Your task to perform on an android device: check the backup settings in the google photos Image 0: 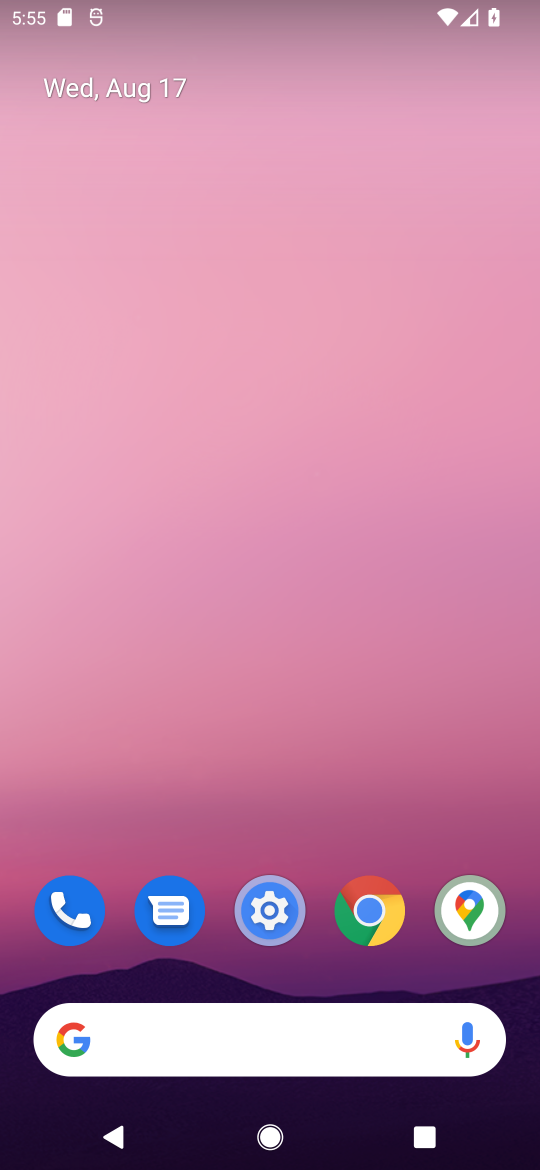
Step 0: drag from (383, 764) to (440, 534)
Your task to perform on an android device: check the backup settings in the google photos Image 1: 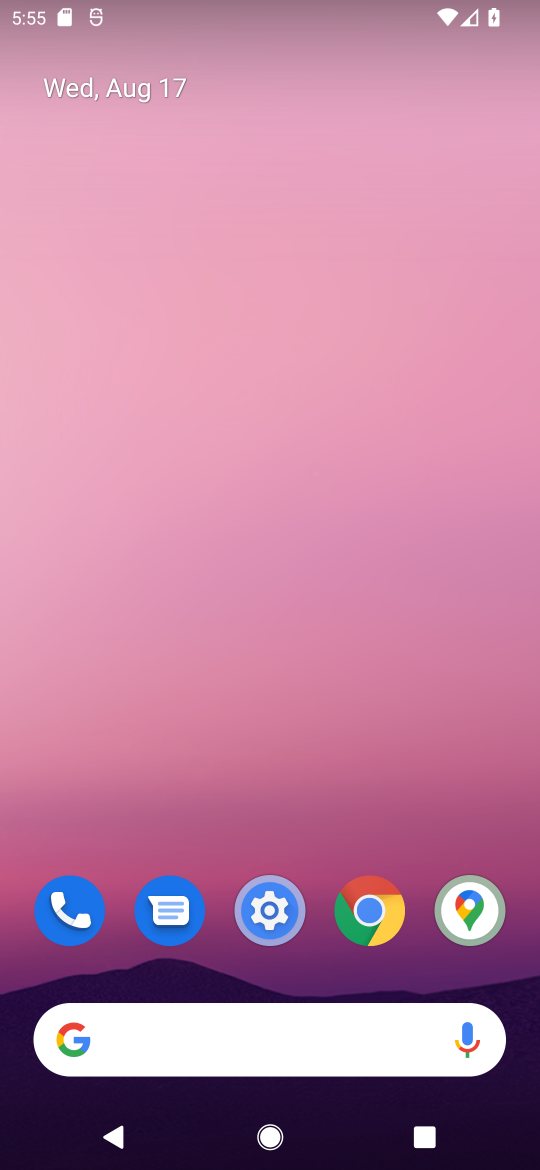
Step 1: drag from (245, 798) to (273, 339)
Your task to perform on an android device: check the backup settings in the google photos Image 2: 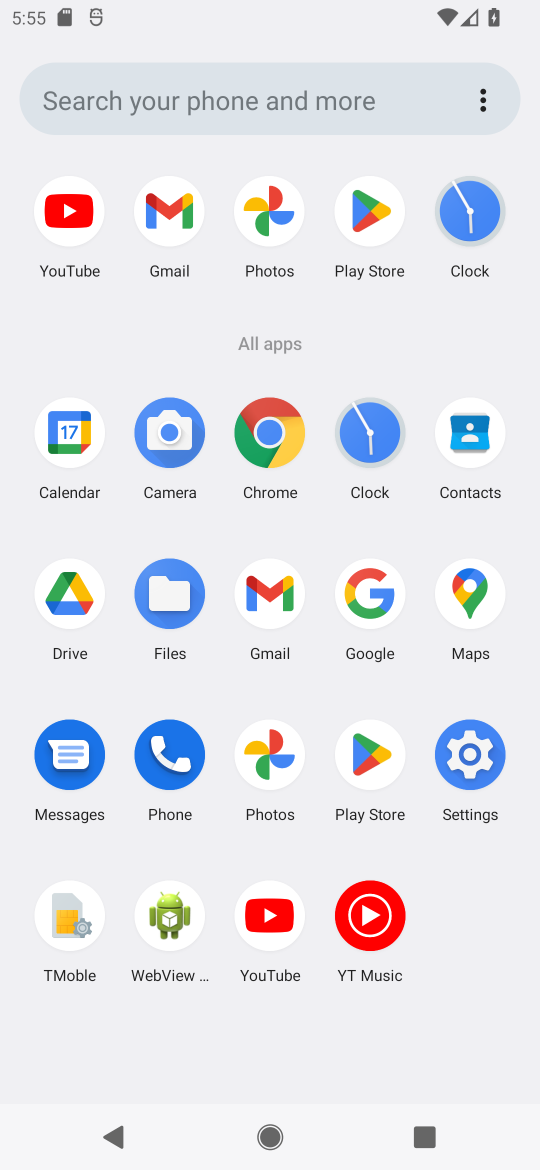
Step 2: click (268, 740)
Your task to perform on an android device: check the backup settings in the google photos Image 3: 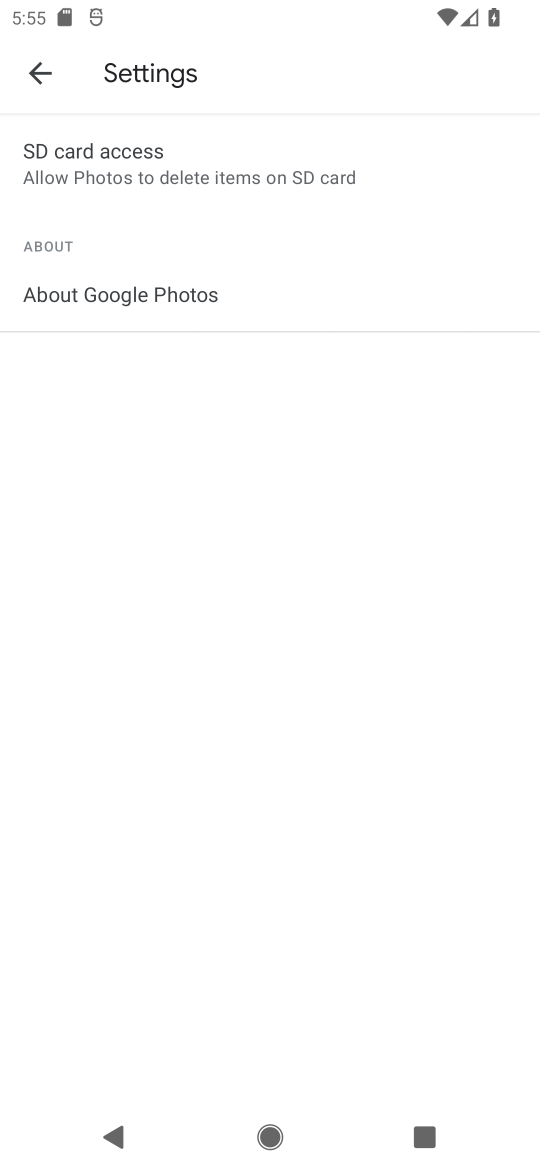
Step 3: task complete